Your task to perform on an android device: toggle wifi Image 0: 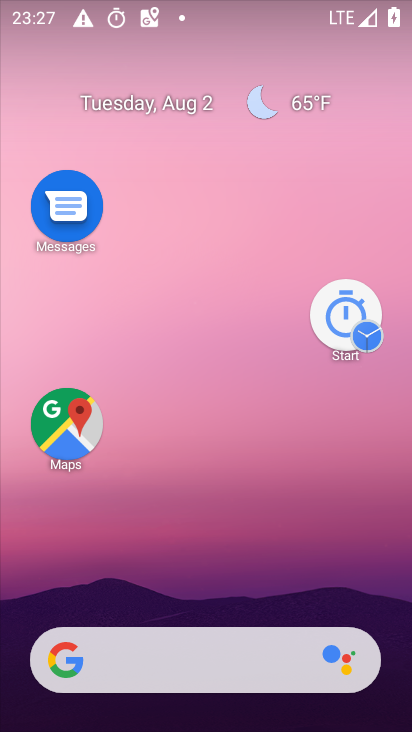
Step 0: press back button
Your task to perform on an android device: toggle wifi Image 1: 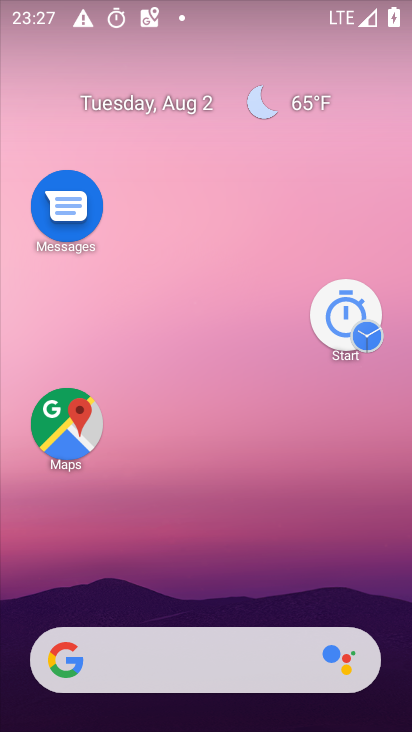
Step 1: drag from (166, 403) to (140, 145)
Your task to perform on an android device: toggle wifi Image 2: 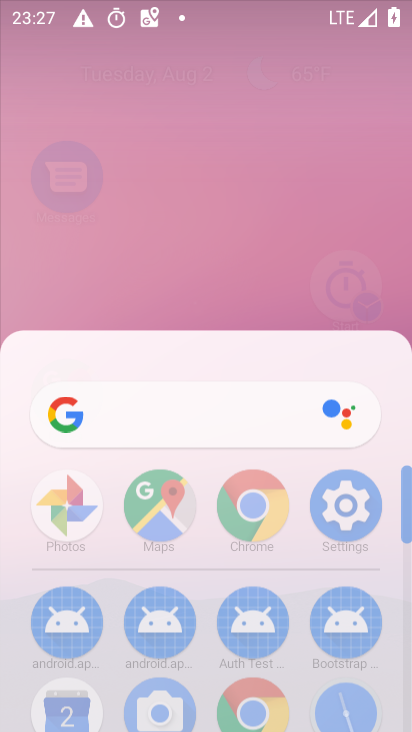
Step 2: drag from (176, 200) to (163, 72)
Your task to perform on an android device: toggle wifi Image 3: 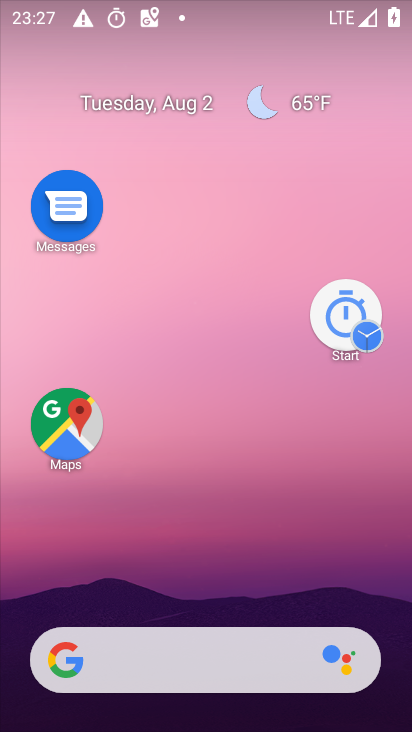
Step 3: drag from (169, 179) to (148, 55)
Your task to perform on an android device: toggle wifi Image 4: 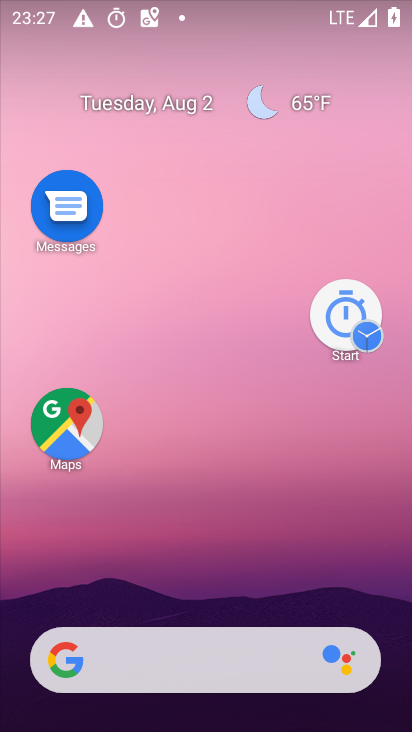
Step 4: drag from (206, 547) to (153, 51)
Your task to perform on an android device: toggle wifi Image 5: 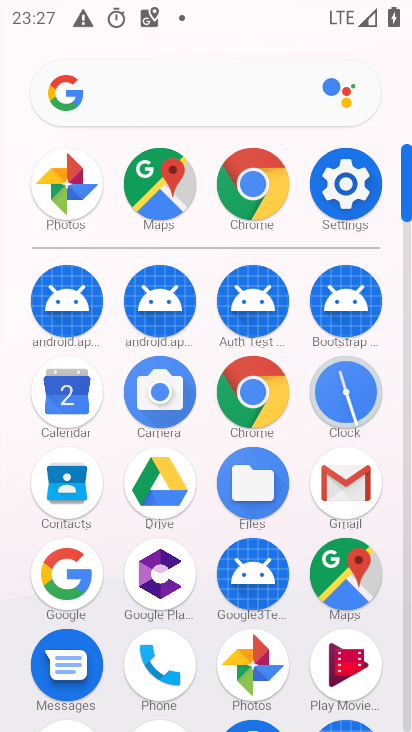
Step 5: click (334, 190)
Your task to perform on an android device: toggle wifi Image 6: 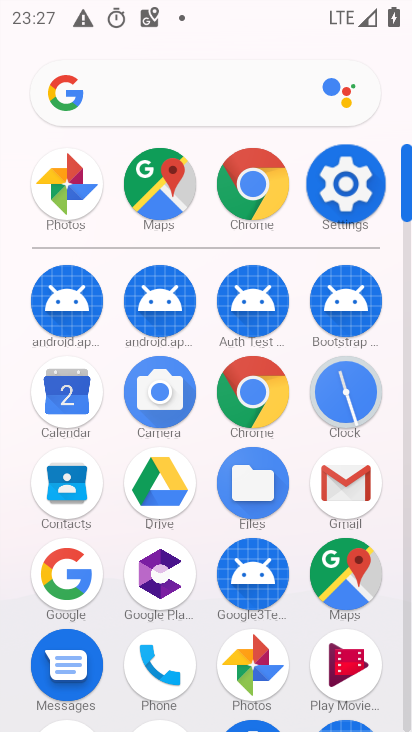
Step 6: click (335, 186)
Your task to perform on an android device: toggle wifi Image 7: 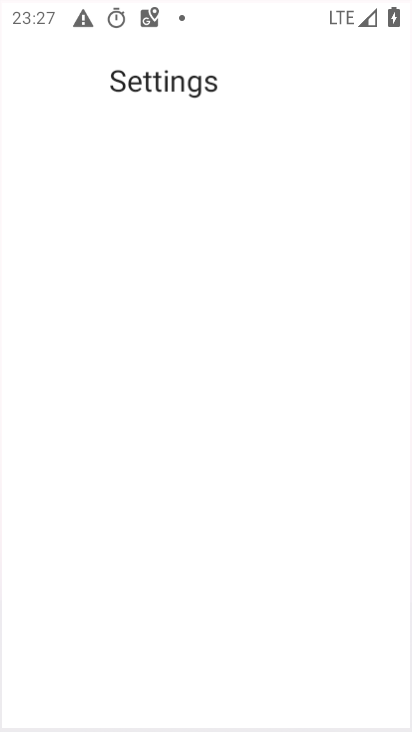
Step 7: click (337, 183)
Your task to perform on an android device: toggle wifi Image 8: 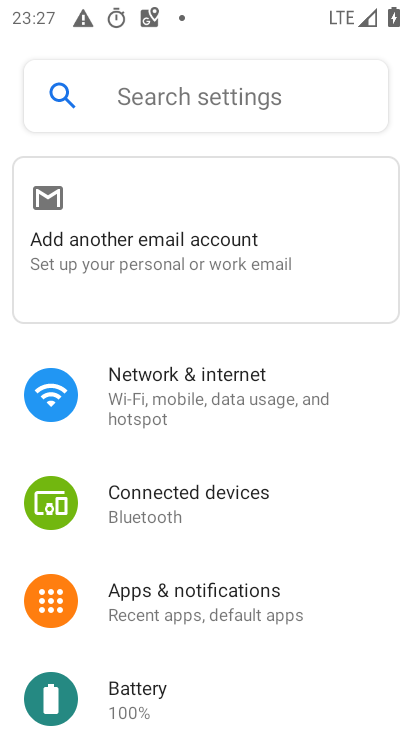
Step 8: click (174, 385)
Your task to perform on an android device: toggle wifi Image 9: 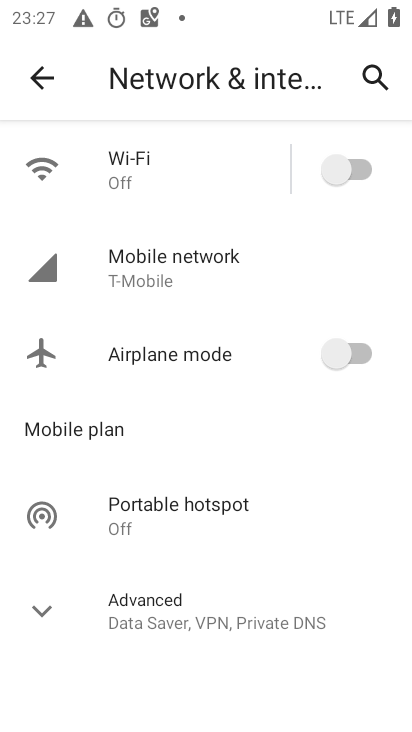
Step 9: click (329, 164)
Your task to perform on an android device: toggle wifi Image 10: 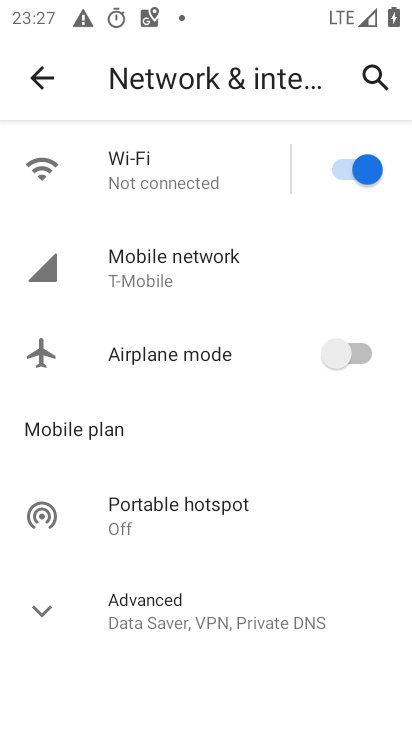
Step 10: task complete